Your task to perform on an android device: Open wifi settings Image 0: 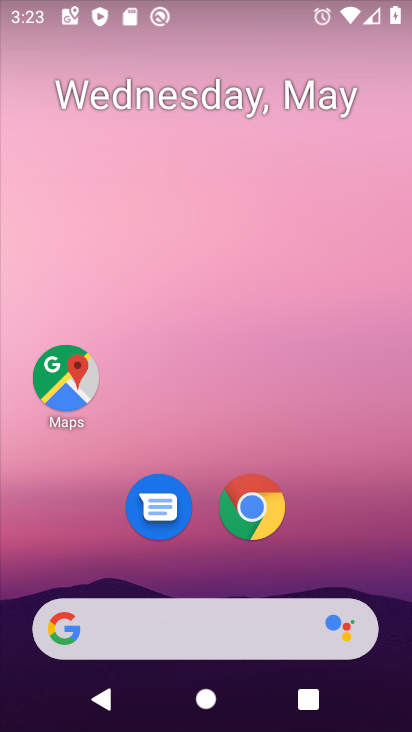
Step 0: drag from (206, 546) to (242, 98)
Your task to perform on an android device: Open wifi settings Image 1: 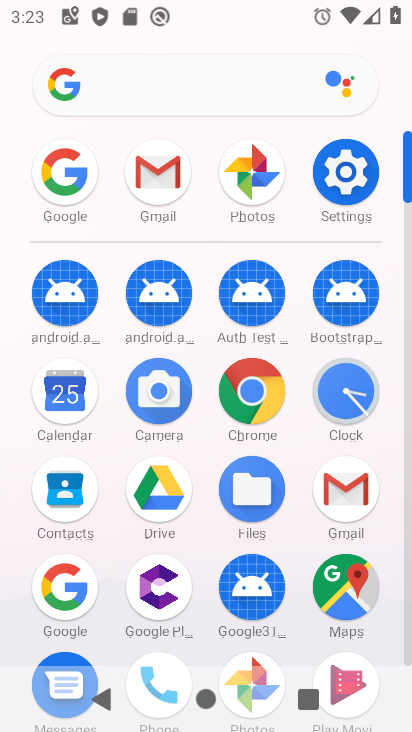
Step 1: click (343, 168)
Your task to perform on an android device: Open wifi settings Image 2: 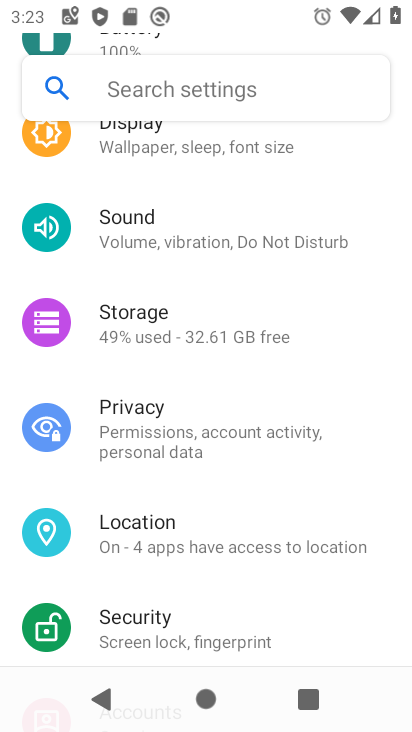
Step 2: drag from (190, 160) to (312, 535)
Your task to perform on an android device: Open wifi settings Image 3: 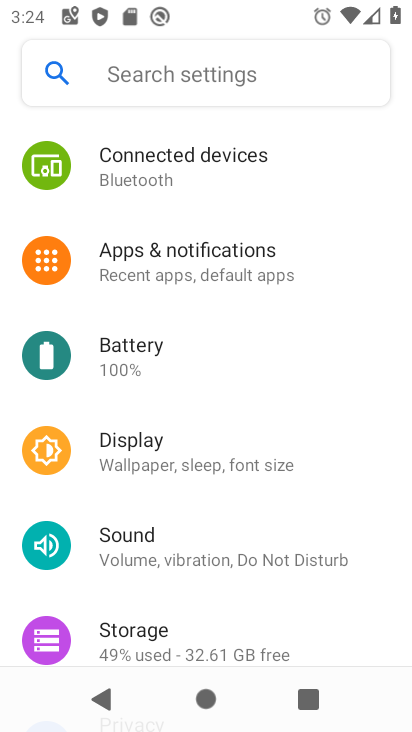
Step 3: drag from (178, 184) to (228, 459)
Your task to perform on an android device: Open wifi settings Image 4: 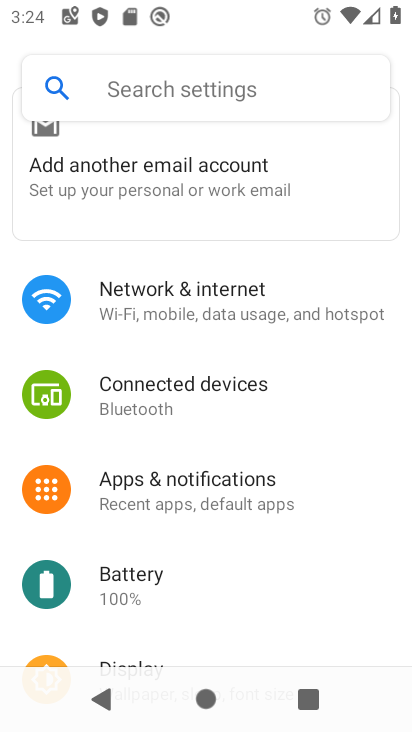
Step 4: click (171, 303)
Your task to perform on an android device: Open wifi settings Image 5: 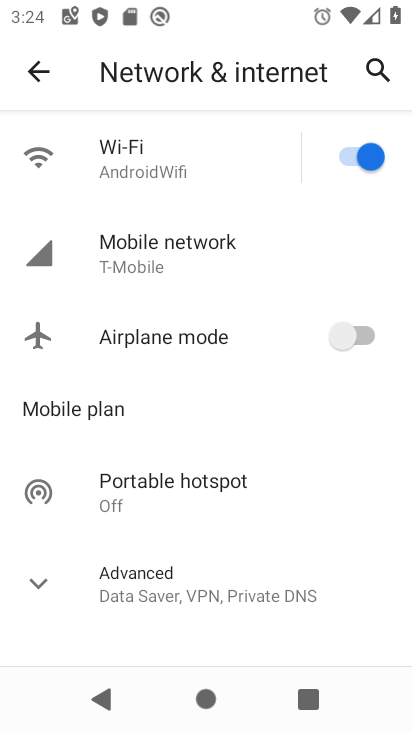
Step 5: click (148, 166)
Your task to perform on an android device: Open wifi settings Image 6: 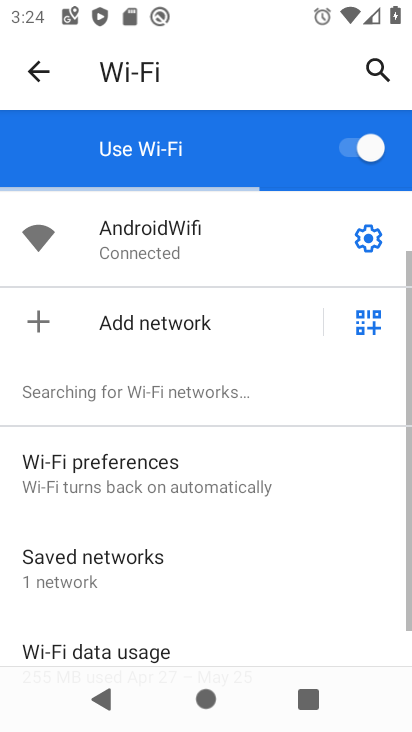
Step 6: click (229, 230)
Your task to perform on an android device: Open wifi settings Image 7: 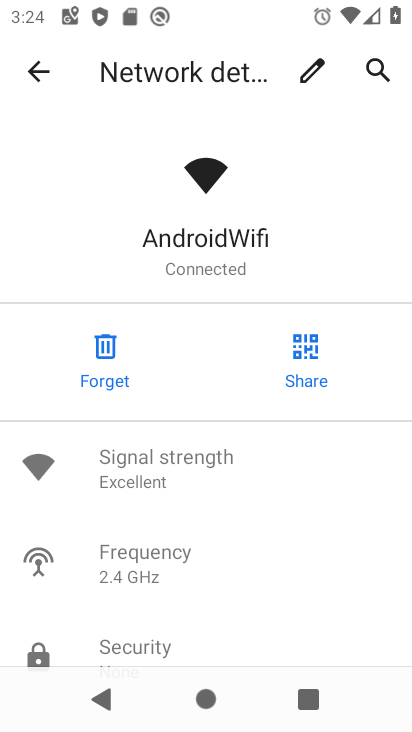
Step 7: task complete